Your task to perform on an android device: Check the weather Image 0: 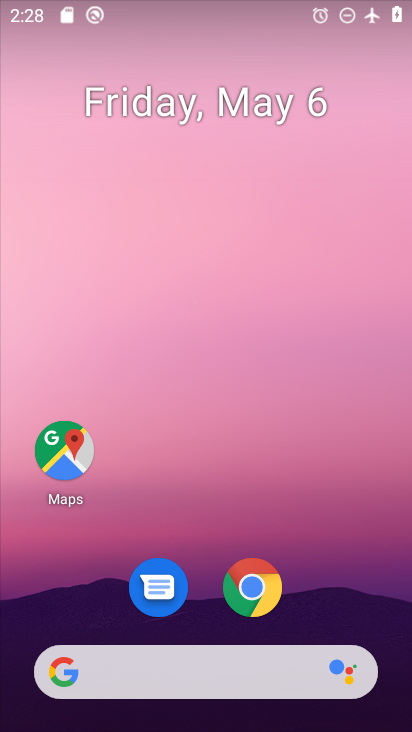
Step 0: click (144, 677)
Your task to perform on an android device: Check the weather Image 1: 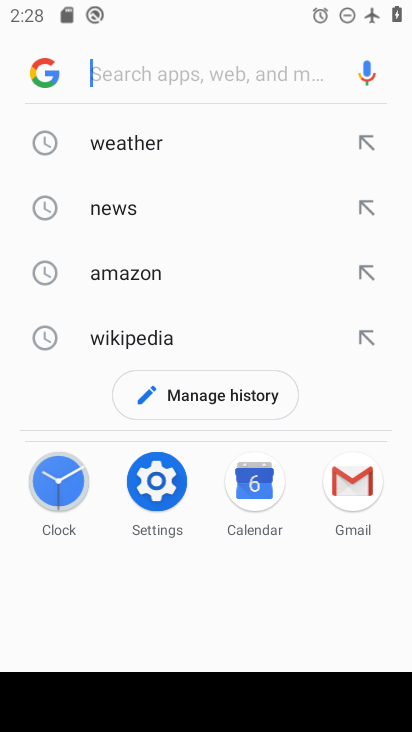
Step 1: click (145, 140)
Your task to perform on an android device: Check the weather Image 2: 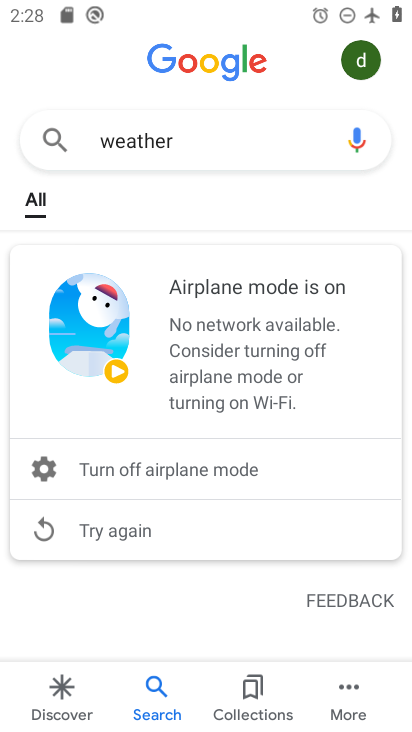
Step 2: task complete